Your task to perform on an android device: Search for pizza restaurants on Maps Image 0: 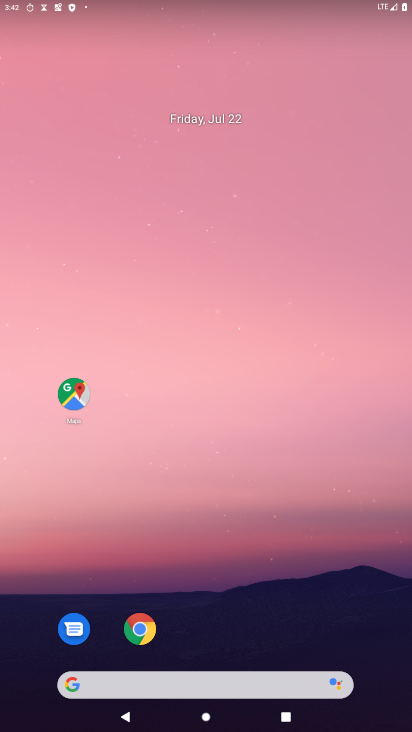
Step 0: drag from (266, 664) to (222, 128)
Your task to perform on an android device: Search for pizza restaurants on Maps Image 1: 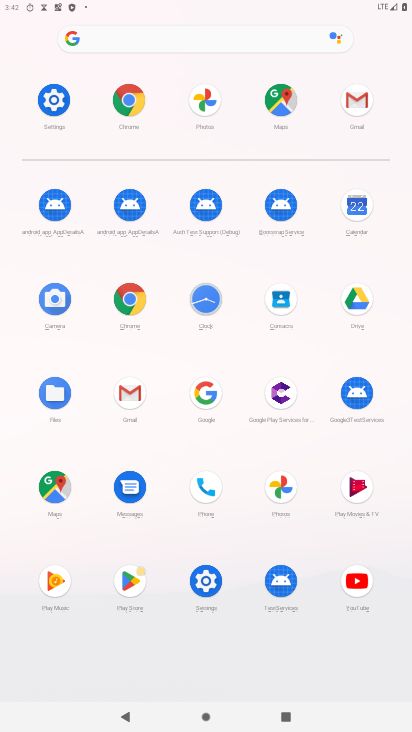
Step 1: click (55, 487)
Your task to perform on an android device: Search for pizza restaurants on Maps Image 2: 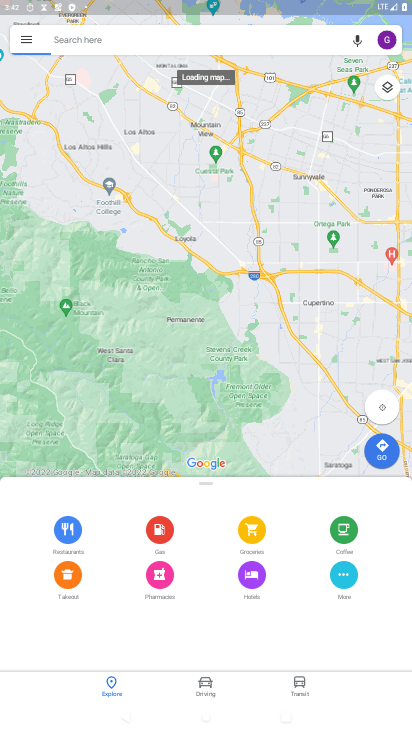
Step 2: click (244, 39)
Your task to perform on an android device: Search for pizza restaurants on Maps Image 3: 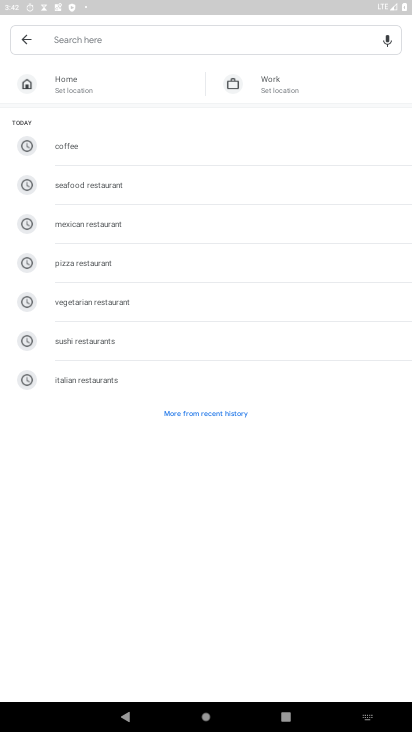
Step 3: click (120, 263)
Your task to perform on an android device: Search for pizza restaurants on Maps Image 4: 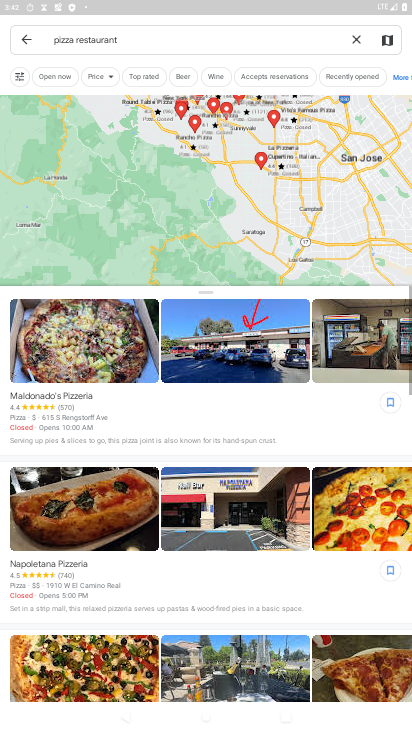
Step 4: task complete